Your task to perform on an android device: refresh tabs in the chrome app Image 0: 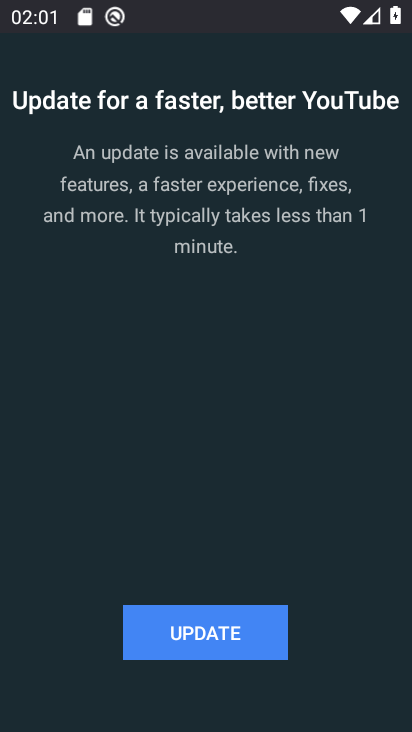
Step 0: press home button
Your task to perform on an android device: refresh tabs in the chrome app Image 1: 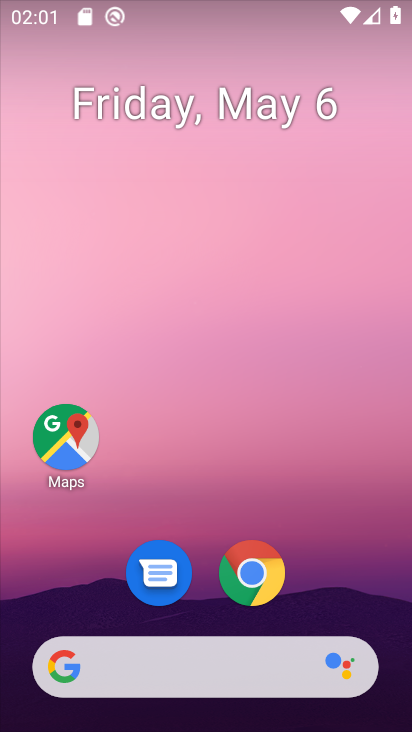
Step 1: drag from (348, 507) to (348, 313)
Your task to perform on an android device: refresh tabs in the chrome app Image 2: 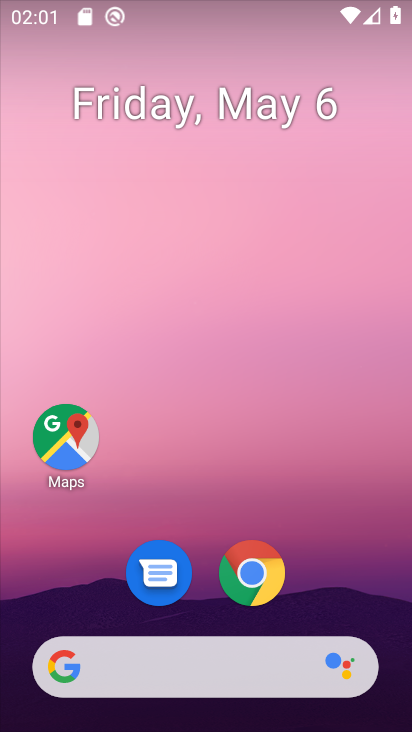
Step 2: drag from (333, 503) to (388, 277)
Your task to perform on an android device: refresh tabs in the chrome app Image 3: 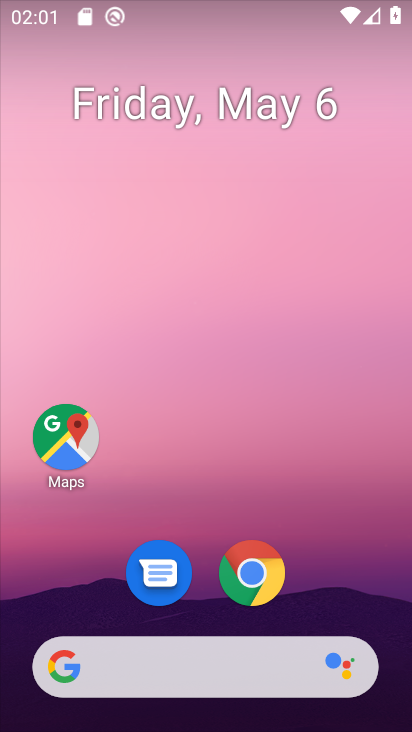
Step 3: drag from (285, 592) to (272, 211)
Your task to perform on an android device: refresh tabs in the chrome app Image 4: 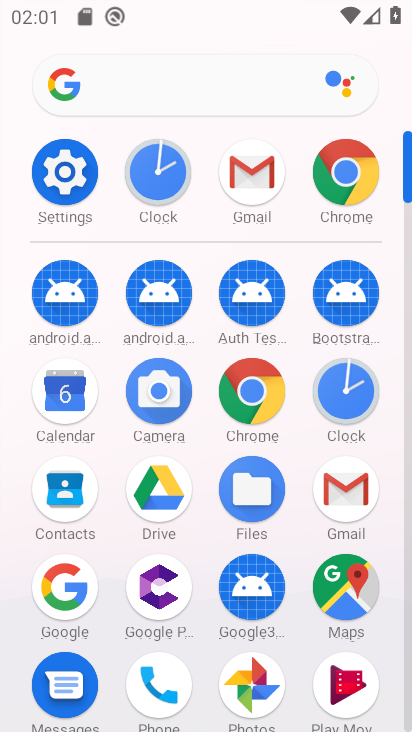
Step 4: click (259, 393)
Your task to perform on an android device: refresh tabs in the chrome app Image 5: 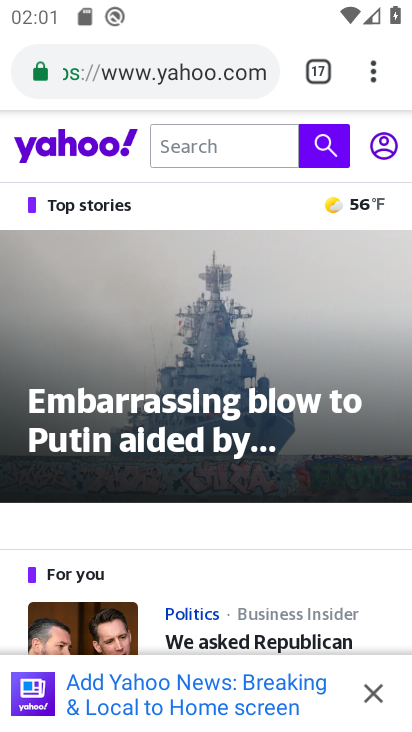
Step 5: click (383, 74)
Your task to perform on an android device: refresh tabs in the chrome app Image 6: 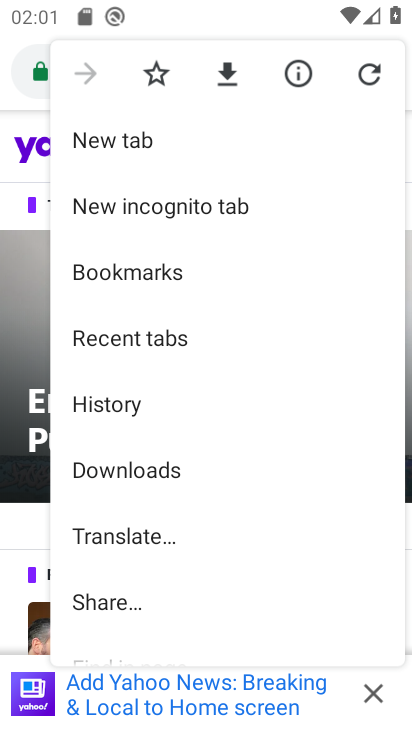
Step 6: click (351, 78)
Your task to perform on an android device: refresh tabs in the chrome app Image 7: 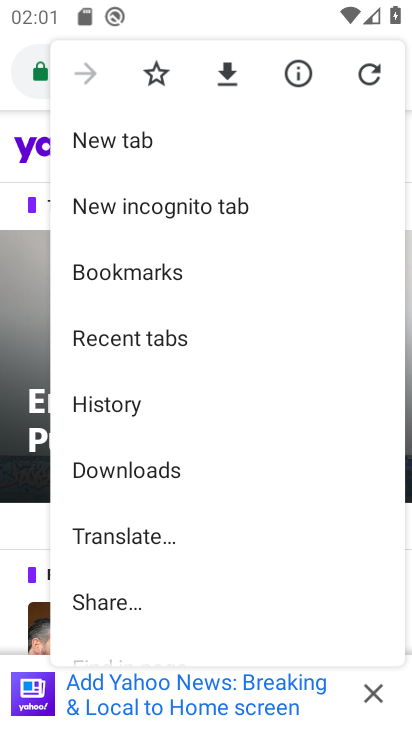
Step 7: task complete